Your task to perform on an android device: Open Chrome and go to settings Image 0: 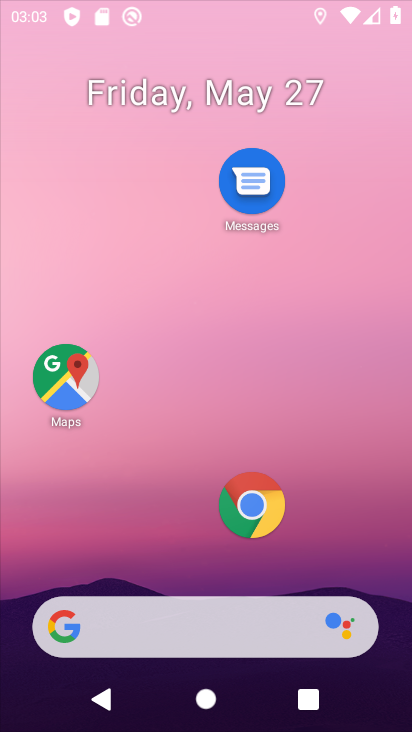
Step 0: click (250, 149)
Your task to perform on an android device: Open Chrome and go to settings Image 1: 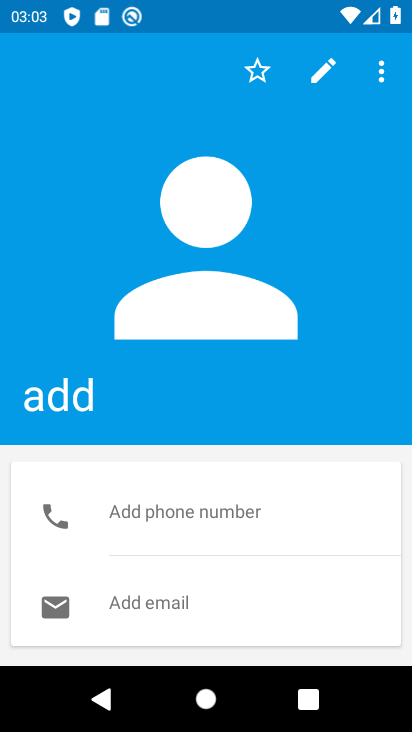
Step 1: press home button
Your task to perform on an android device: Open Chrome and go to settings Image 2: 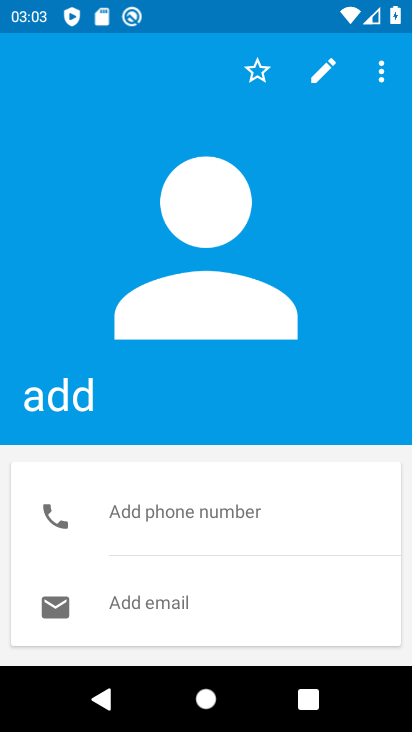
Step 2: press home button
Your task to perform on an android device: Open Chrome and go to settings Image 3: 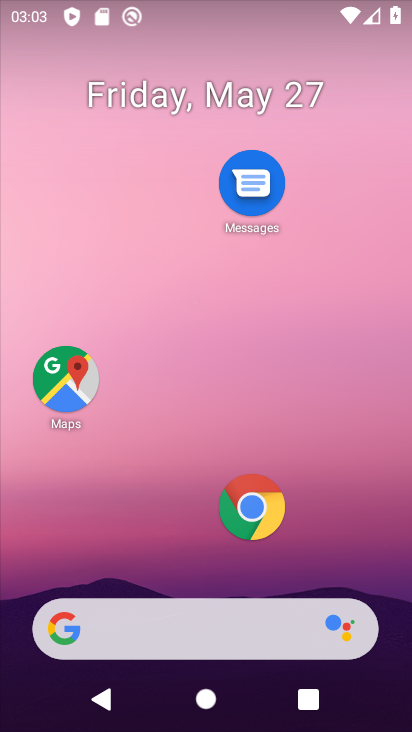
Step 3: click (73, 380)
Your task to perform on an android device: Open Chrome and go to settings Image 4: 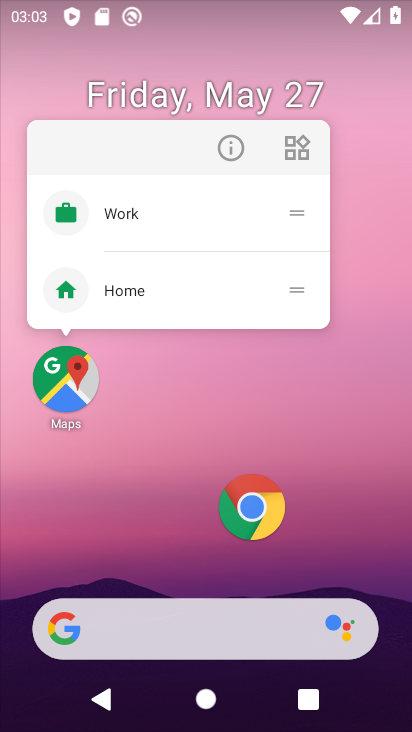
Step 4: click (221, 137)
Your task to perform on an android device: Open Chrome and go to settings Image 5: 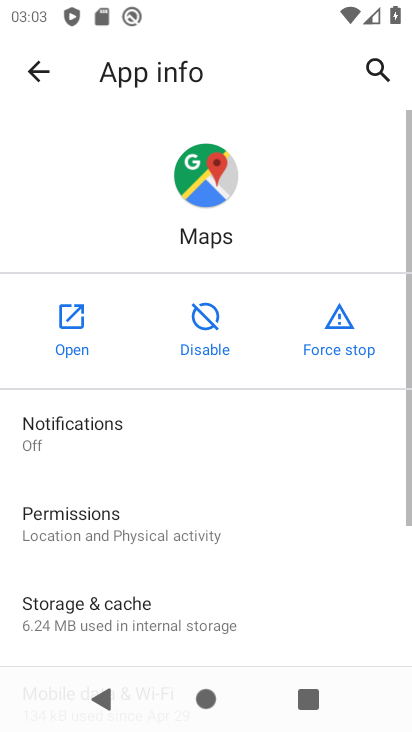
Step 5: click (71, 340)
Your task to perform on an android device: Open Chrome and go to settings Image 6: 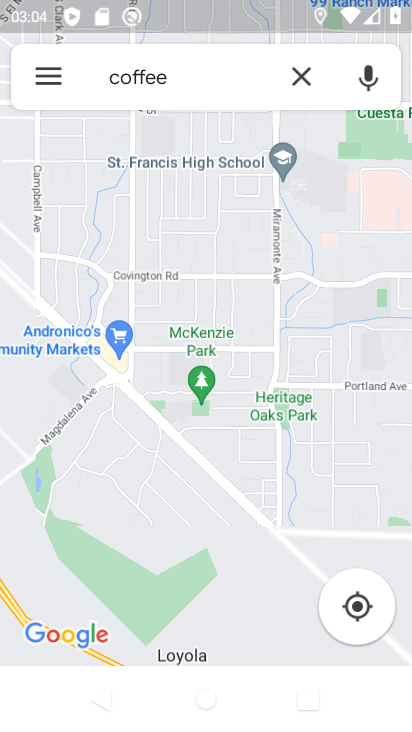
Step 6: press home button
Your task to perform on an android device: Open Chrome and go to settings Image 7: 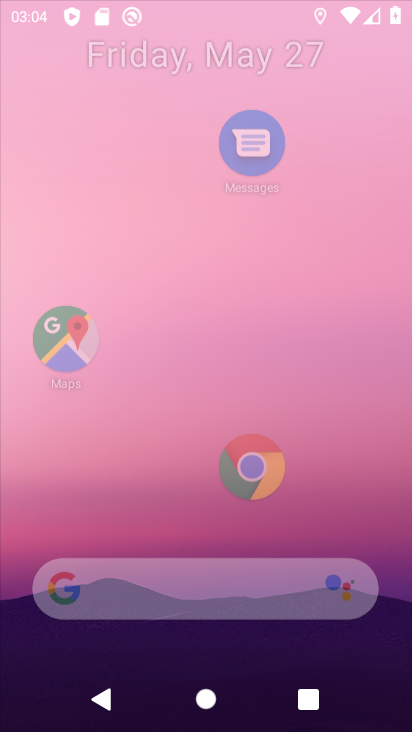
Step 7: drag from (71, 570) to (242, 1)
Your task to perform on an android device: Open Chrome and go to settings Image 8: 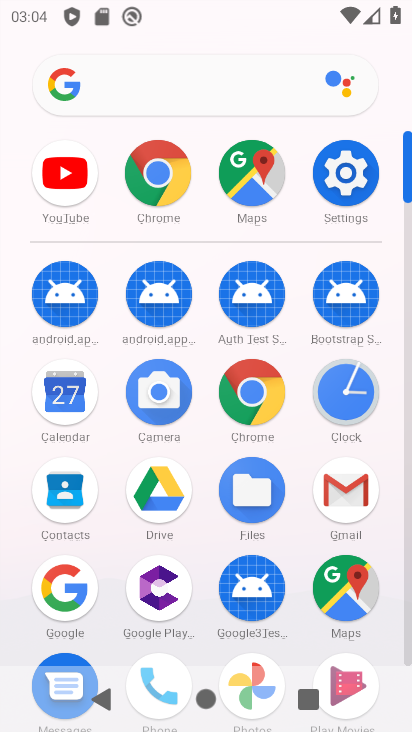
Step 8: click (241, 397)
Your task to perform on an android device: Open Chrome and go to settings Image 9: 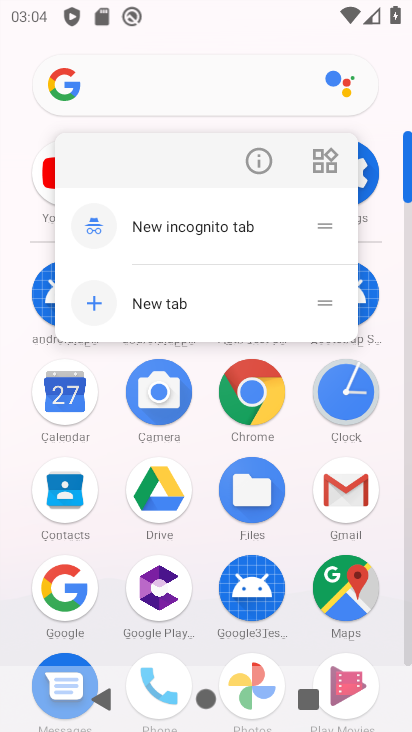
Step 9: click (264, 158)
Your task to perform on an android device: Open Chrome and go to settings Image 10: 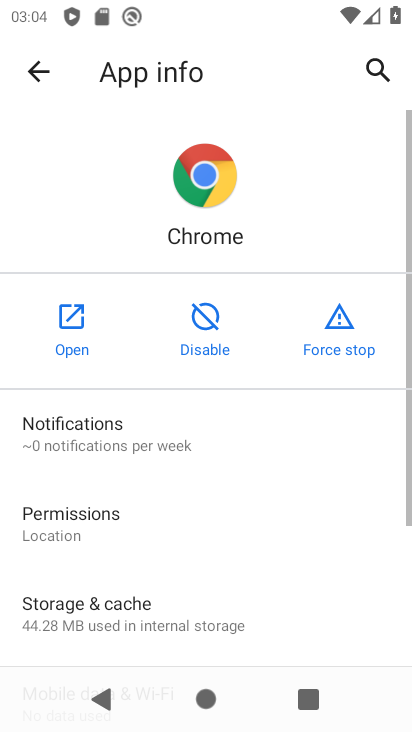
Step 10: click (65, 339)
Your task to perform on an android device: Open Chrome and go to settings Image 11: 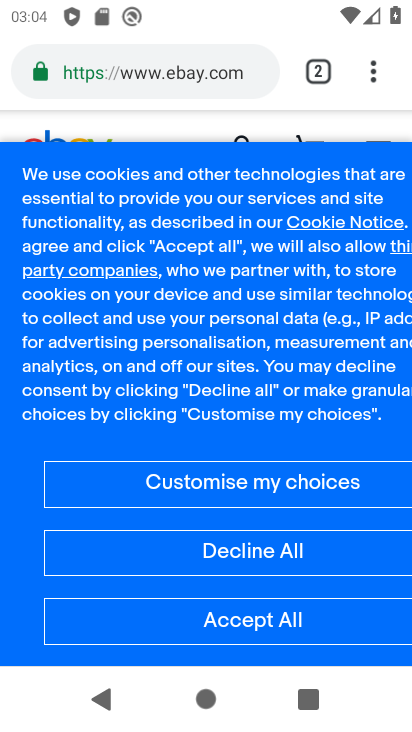
Step 11: task complete